Your task to perform on an android device: Open Android settings Image 0: 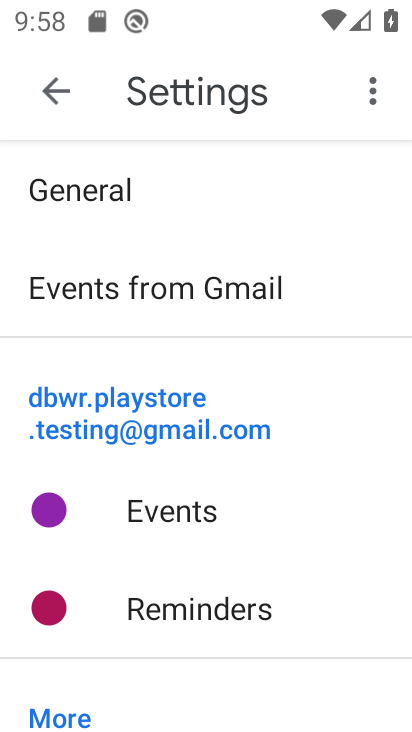
Step 0: press back button
Your task to perform on an android device: Open Android settings Image 1: 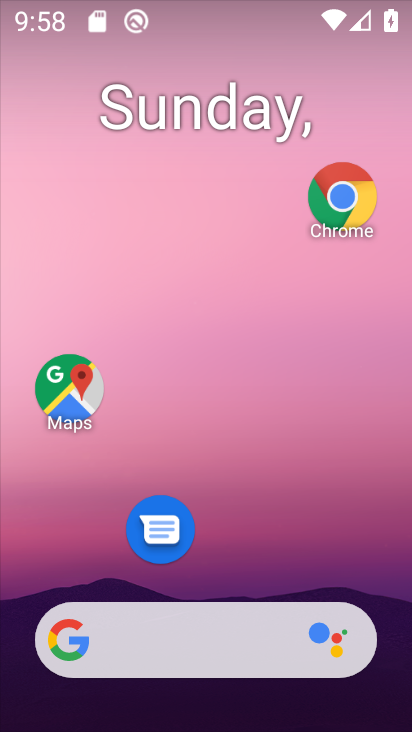
Step 1: drag from (179, 599) to (238, 72)
Your task to perform on an android device: Open Android settings Image 2: 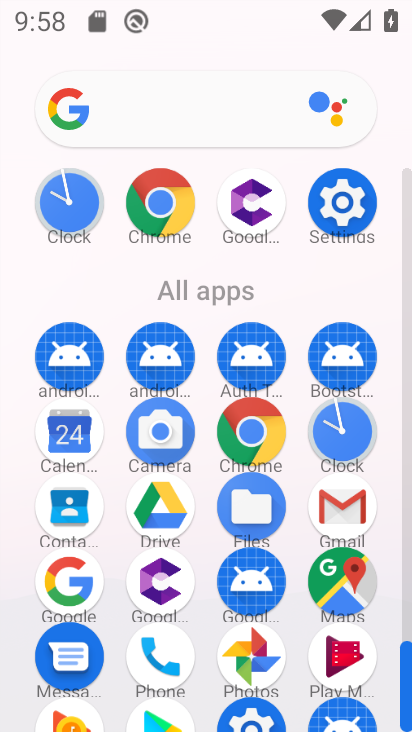
Step 2: click (366, 206)
Your task to perform on an android device: Open Android settings Image 3: 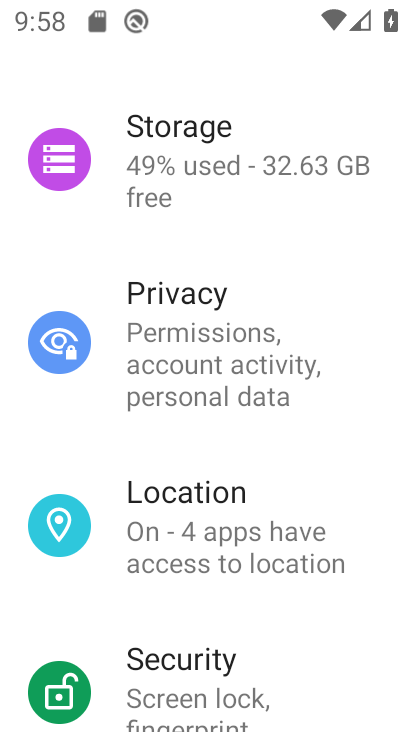
Step 3: task complete